Your task to perform on an android device: change notifications settings Image 0: 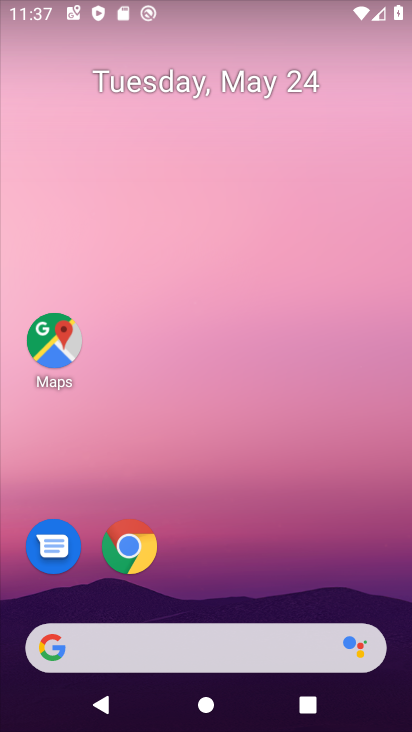
Step 0: drag from (268, 589) to (257, 10)
Your task to perform on an android device: change notifications settings Image 1: 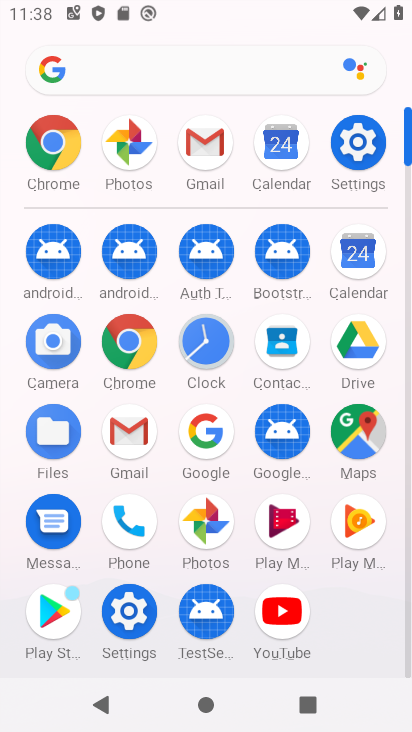
Step 1: click (363, 140)
Your task to perform on an android device: change notifications settings Image 2: 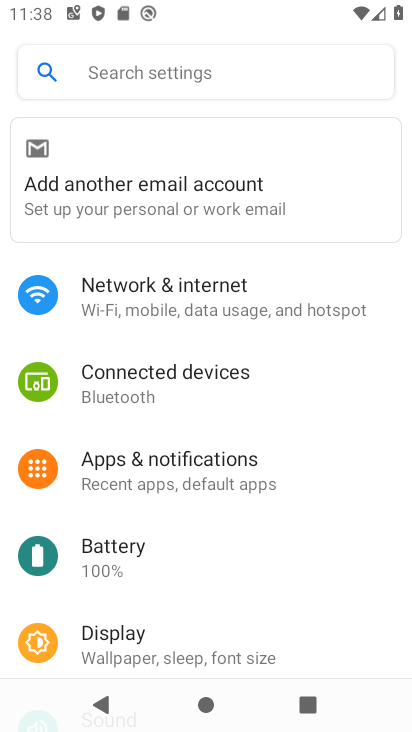
Step 2: click (288, 471)
Your task to perform on an android device: change notifications settings Image 3: 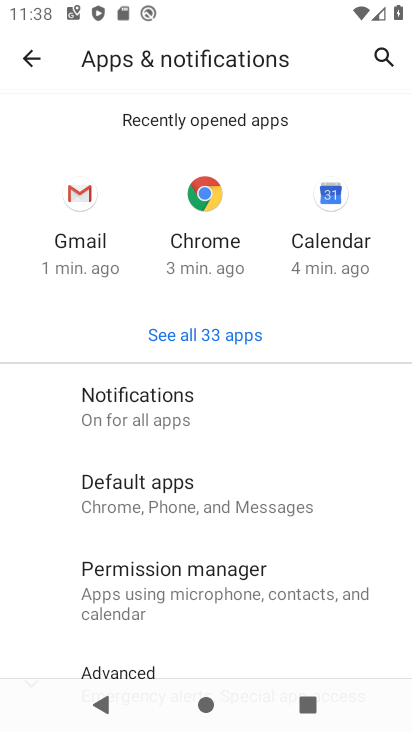
Step 3: click (273, 389)
Your task to perform on an android device: change notifications settings Image 4: 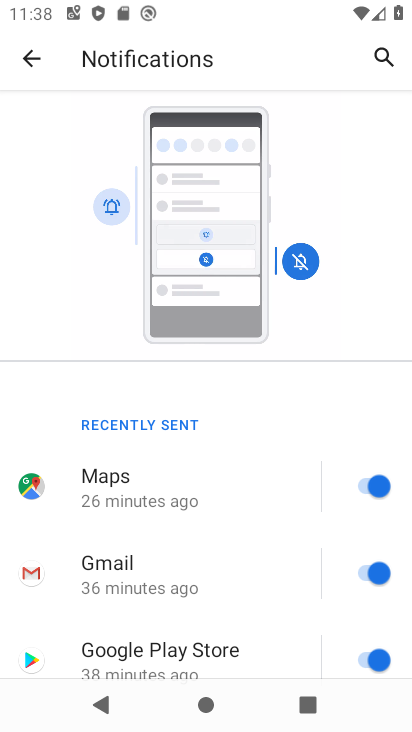
Step 4: drag from (256, 653) to (256, 264)
Your task to perform on an android device: change notifications settings Image 5: 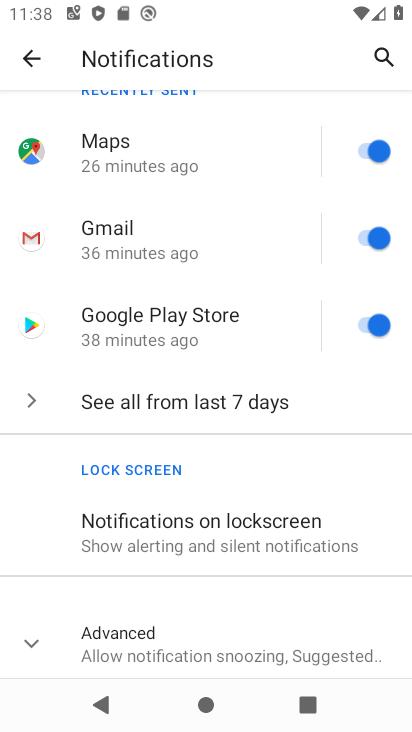
Step 5: drag from (288, 610) to (263, 303)
Your task to perform on an android device: change notifications settings Image 6: 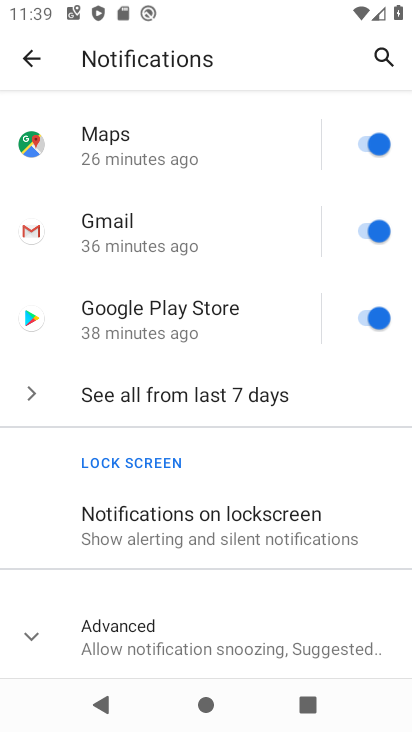
Step 6: click (256, 638)
Your task to perform on an android device: change notifications settings Image 7: 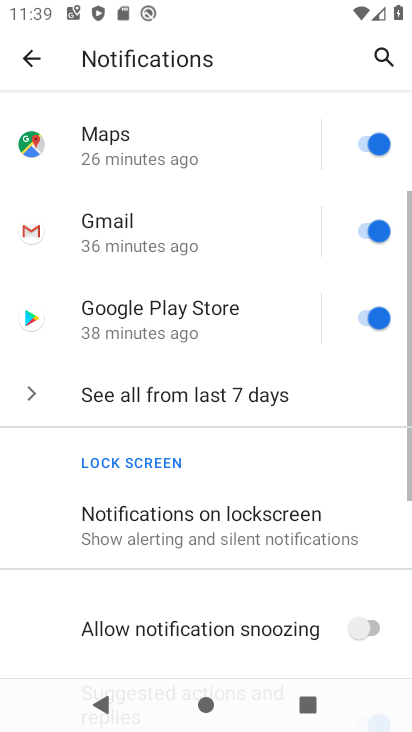
Step 7: drag from (256, 638) to (228, 399)
Your task to perform on an android device: change notifications settings Image 8: 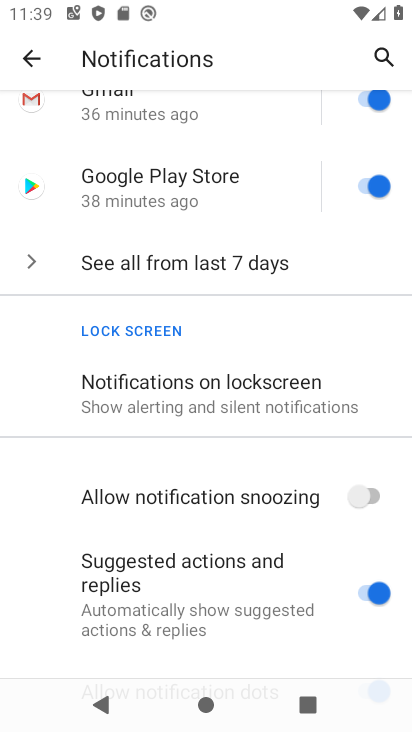
Step 8: click (366, 485)
Your task to perform on an android device: change notifications settings Image 9: 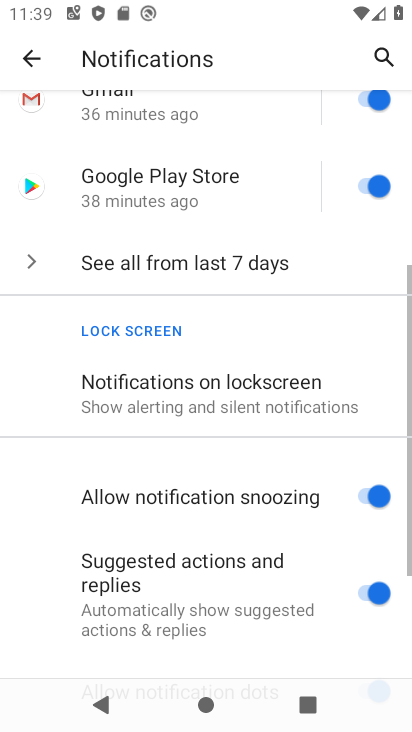
Step 9: click (378, 597)
Your task to perform on an android device: change notifications settings Image 10: 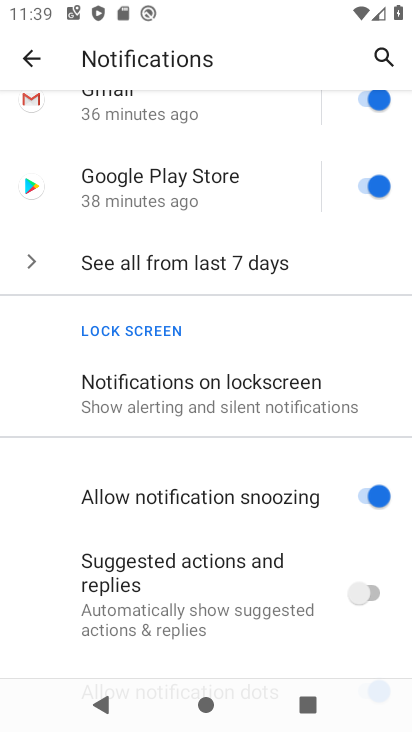
Step 10: task complete